Your task to perform on an android device: What's the weather going to be this weekend? Image 0: 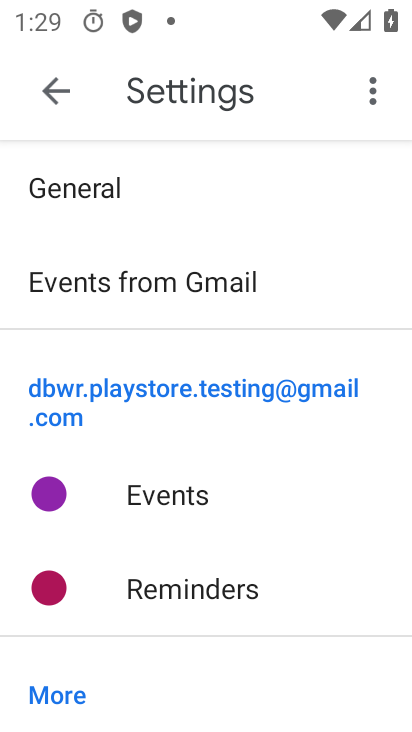
Step 0: press home button
Your task to perform on an android device: What's the weather going to be this weekend? Image 1: 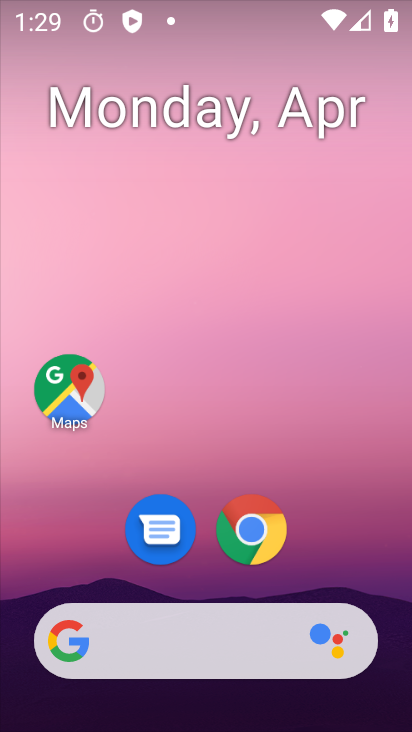
Step 1: drag from (240, 415) to (244, 254)
Your task to perform on an android device: What's the weather going to be this weekend? Image 2: 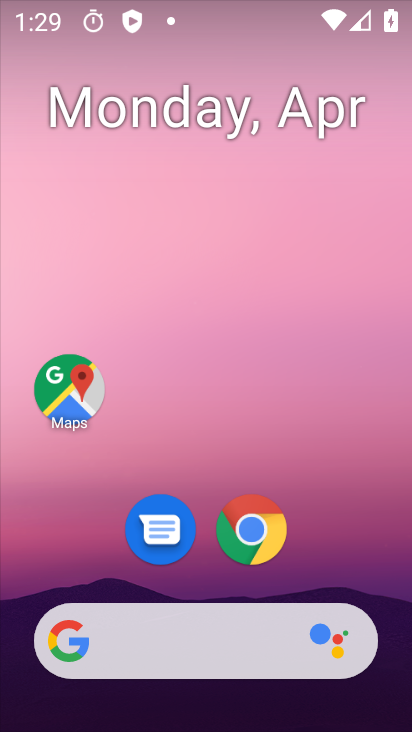
Step 2: click (257, 522)
Your task to perform on an android device: What's the weather going to be this weekend? Image 3: 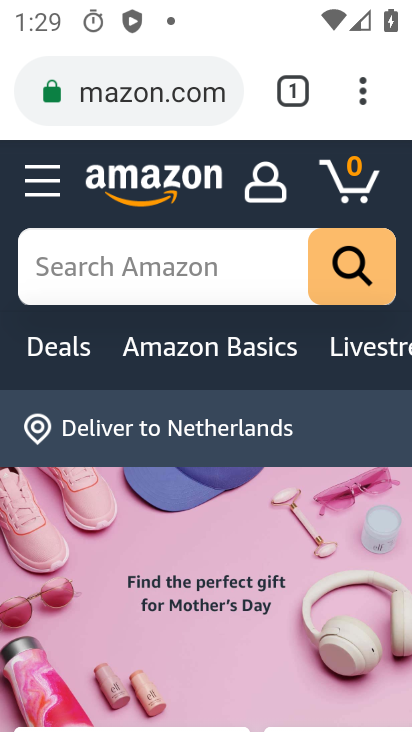
Step 3: click (353, 99)
Your task to perform on an android device: What's the weather going to be this weekend? Image 4: 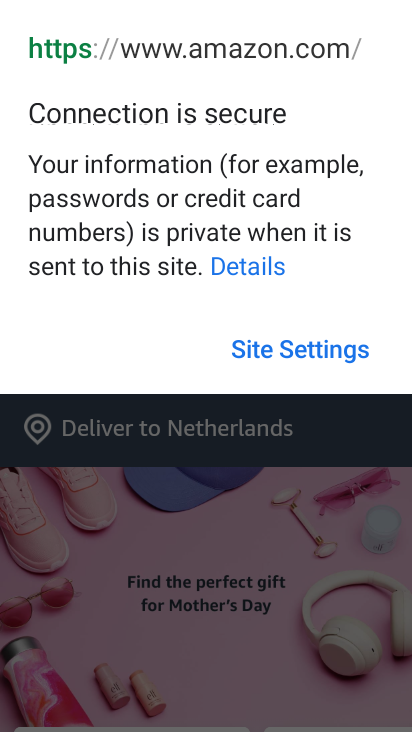
Step 4: press back button
Your task to perform on an android device: What's the weather going to be this weekend? Image 5: 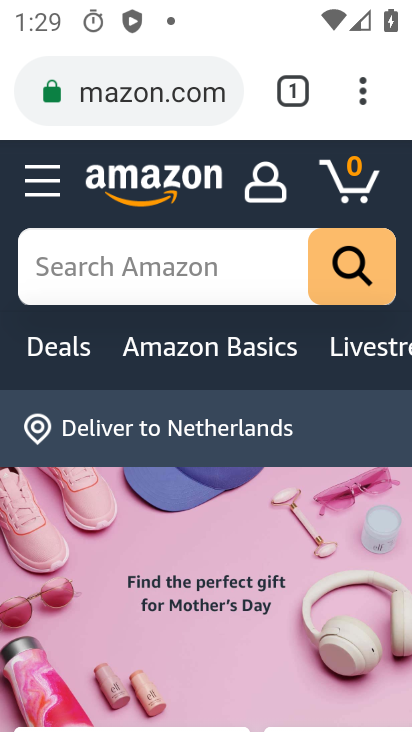
Step 5: click (350, 94)
Your task to perform on an android device: What's the weather going to be this weekend? Image 6: 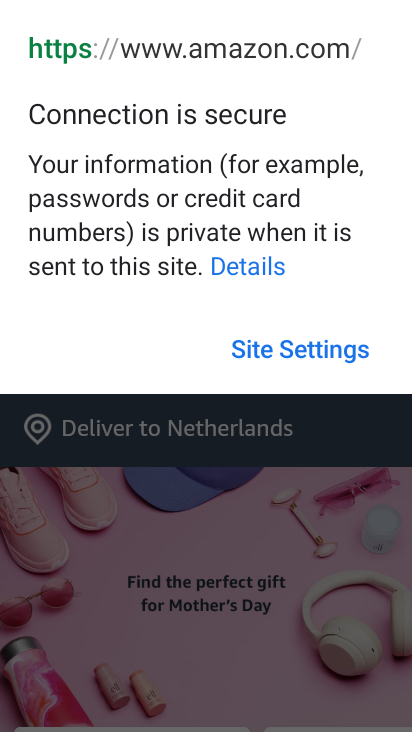
Step 6: press back button
Your task to perform on an android device: What's the weather going to be this weekend? Image 7: 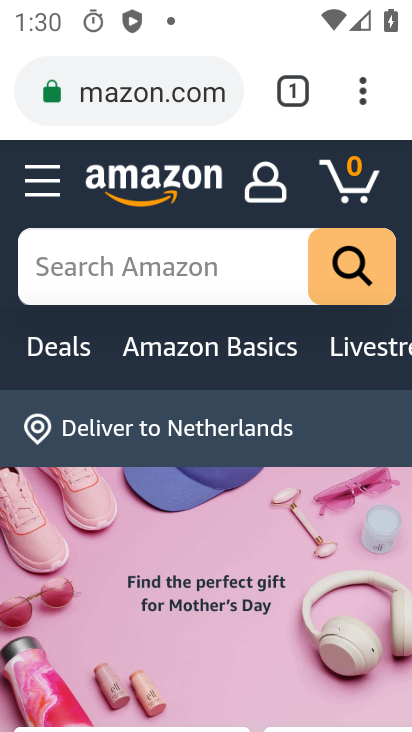
Step 7: click (348, 92)
Your task to perform on an android device: What's the weather going to be this weekend? Image 8: 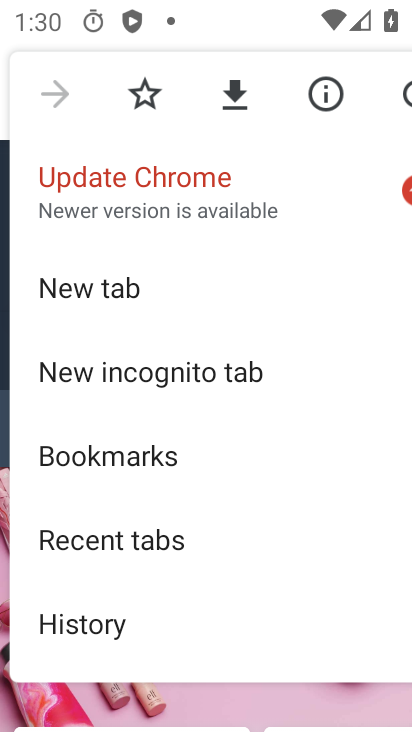
Step 8: click (116, 280)
Your task to perform on an android device: What's the weather going to be this weekend? Image 9: 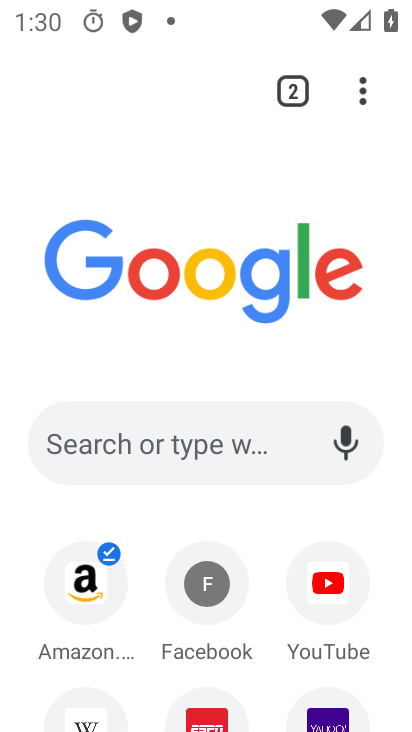
Step 9: click (308, 418)
Your task to perform on an android device: What's the weather going to be this weekend? Image 10: 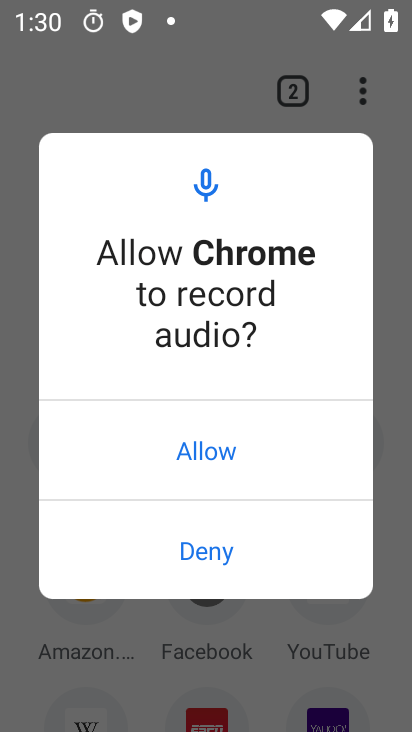
Step 10: type "What's the weather going to be this weekend"
Your task to perform on an android device: What's the weather going to be this weekend? Image 11: 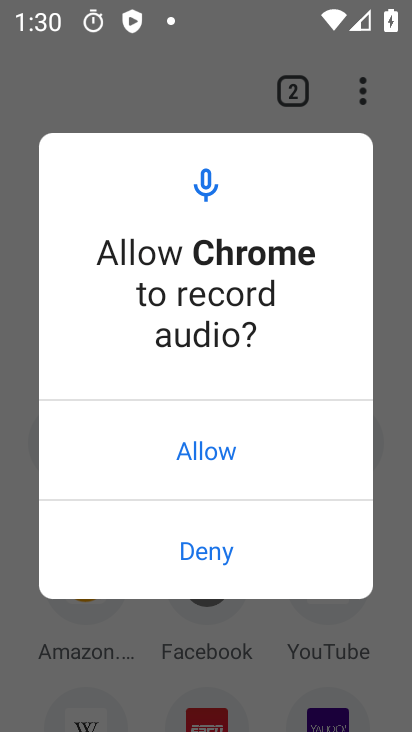
Step 11: click (202, 530)
Your task to perform on an android device: What's the weather going to be this weekend? Image 12: 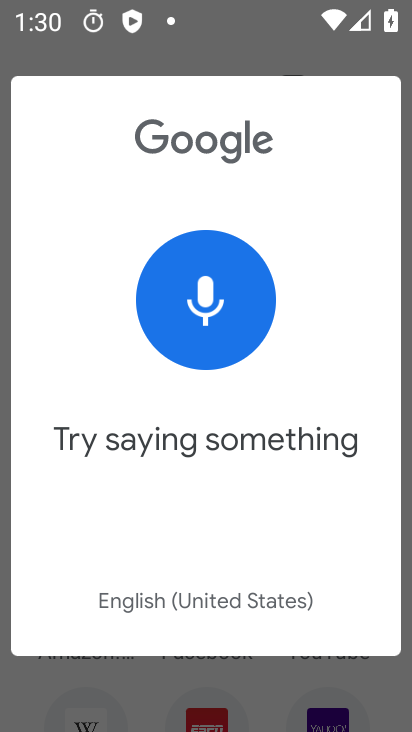
Step 12: press back button
Your task to perform on an android device: What's the weather going to be this weekend? Image 13: 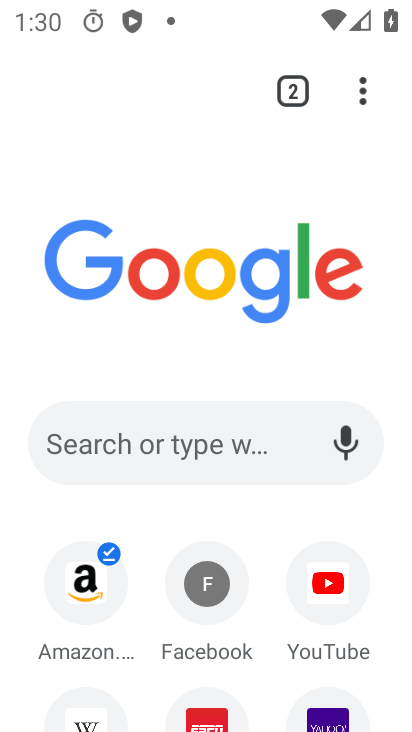
Step 13: click (139, 443)
Your task to perform on an android device: What's the weather going to be this weekend? Image 14: 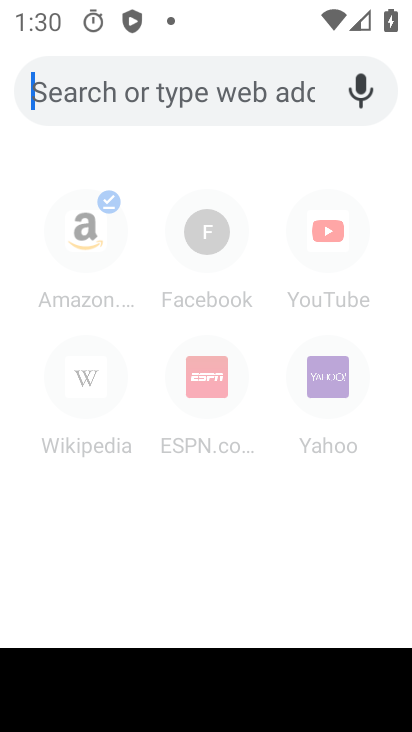
Step 14: click (229, 76)
Your task to perform on an android device: What's the weather going to be this weekend? Image 15: 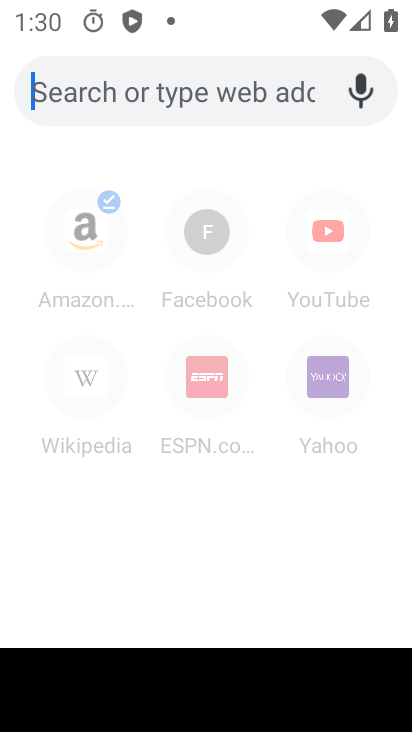
Step 15: type "What's the weather going to be this weekend"
Your task to perform on an android device: What's the weather going to be this weekend? Image 16: 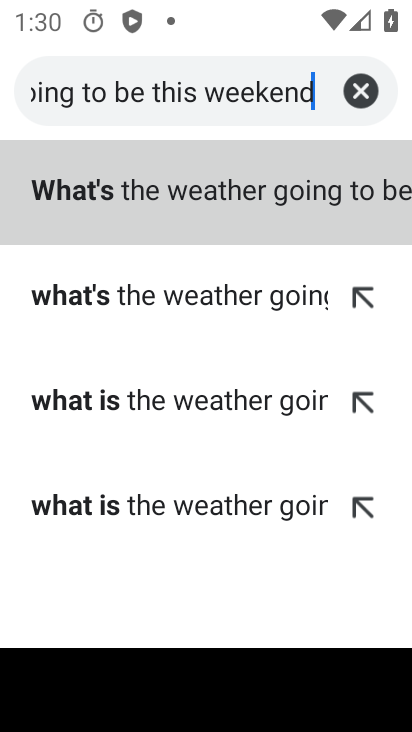
Step 16: click (50, 189)
Your task to perform on an android device: What's the weather going to be this weekend? Image 17: 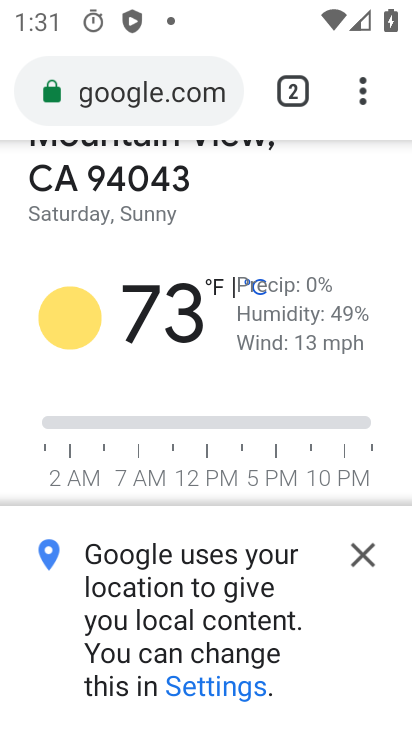
Step 17: task complete